Your task to perform on an android device: toggle javascript in the chrome app Image 0: 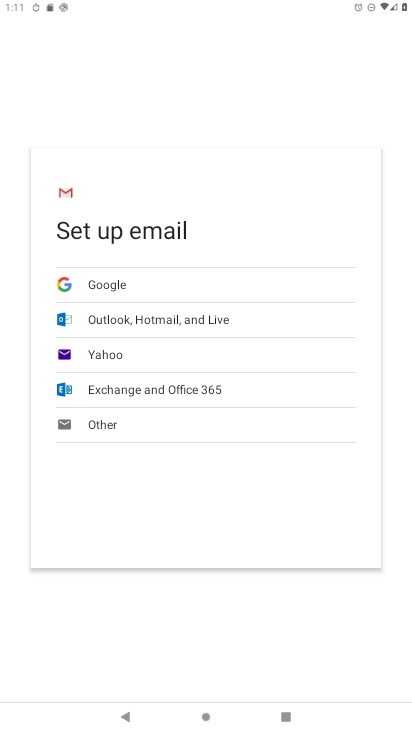
Step 0: press home button
Your task to perform on an android device: toggle javascript in the chrome app Image 1: 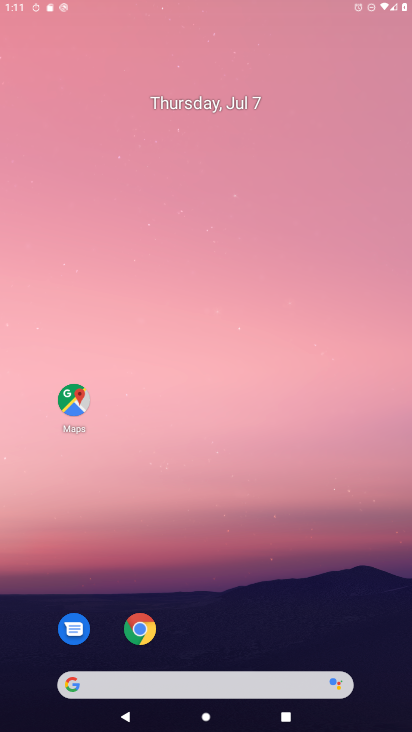
Step 1: press home button
Your task to perform on an android device: toggle javascript in the chrome app Image 2: 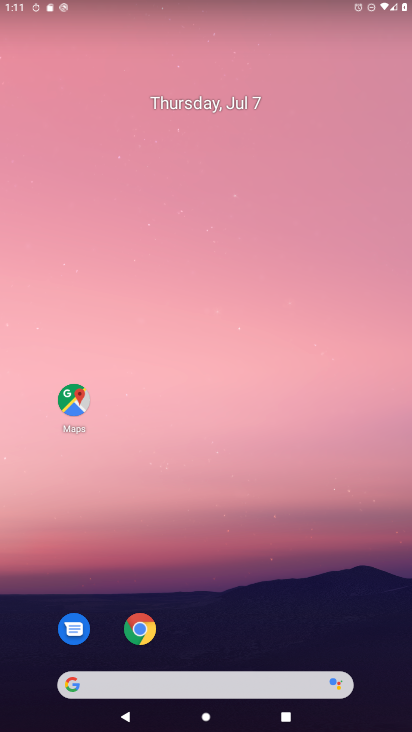
Step 2: click (146, 641)
Your task to perform on an android device: toggle javascript in the chrome app Image 3: 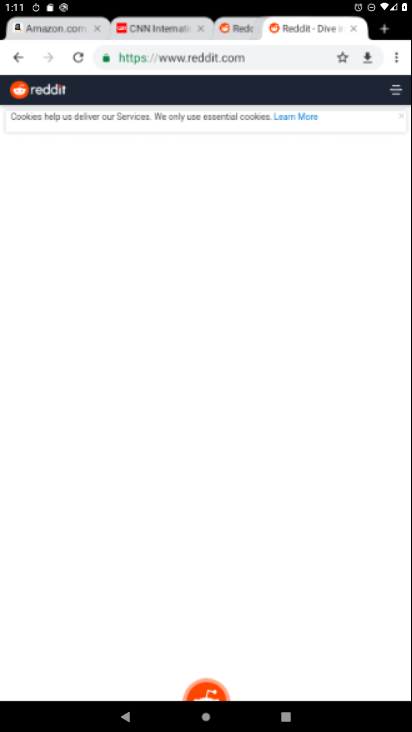
Step 3: click (388, 57)
Your task to perform on an android device: toggle javascript in the chrome app Image 4: 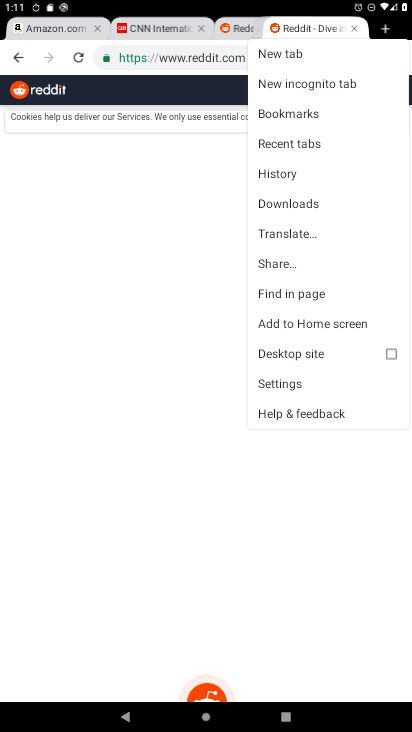
Step 4: click (285, 381)
Your task to perform on an android device: toggle javascript in the chrome app Image 5: 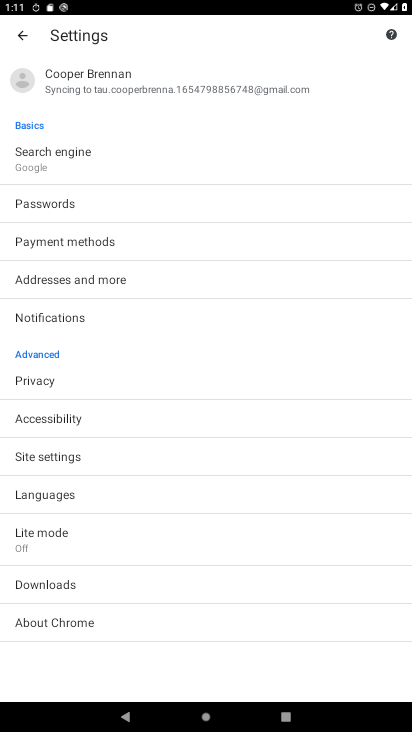
Step 5: drag from (108, 596) to (113, 205)
Your task to perform on an android device: toggle javascript in the chrome app Image 6: 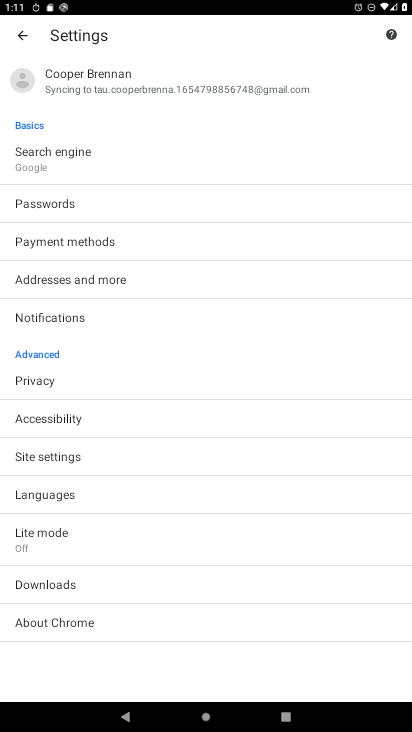
Step 6: click (68, 463)
Your task to perform on an android device: toggle javascript in the chrome app Image 7: 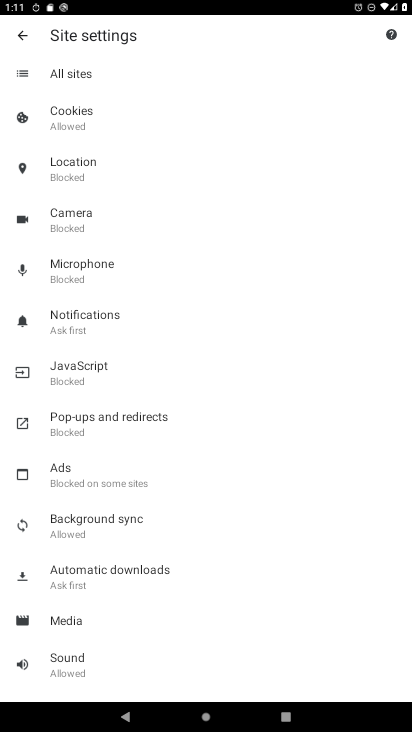
Step 7: click (104, 360)
Your task to perform on an android device: toggle javascript in the chrome app Image 8: 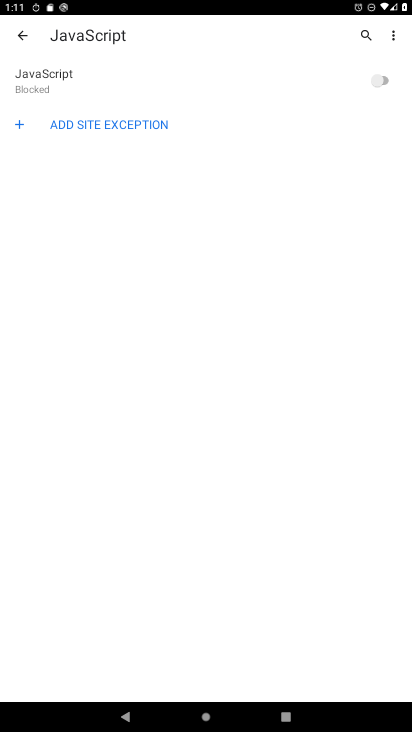
Step 8: click (383, 79)
Your task to perform on an android device: toggle javascript in the chrome app Image 9: 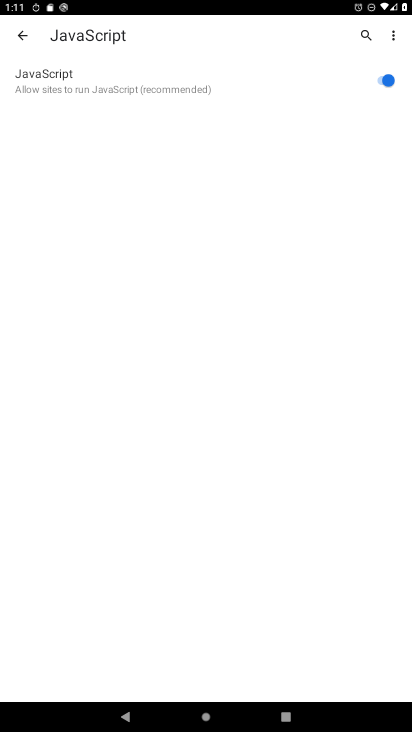
Step 9: task complete